Your task to perform on an android device: allow cookies in the chrome app Image 0: 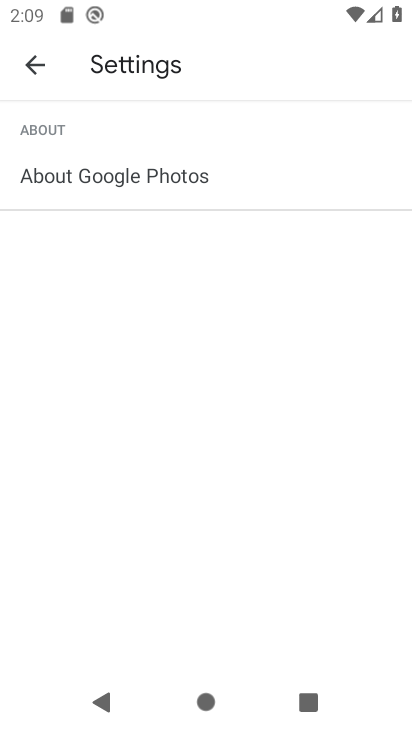
Step 0: press back button
Your task to perform on an android device: allow cookies in the chrome app Image 1: 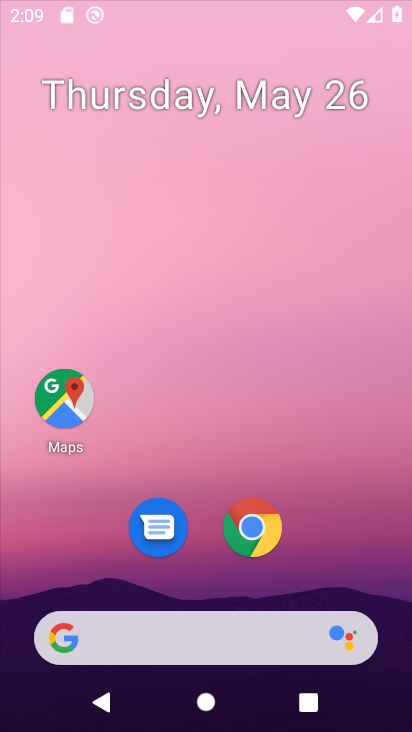
Step 1: press back button
Your task to perform on an android device: allow cookies in the chrome app Image 2: 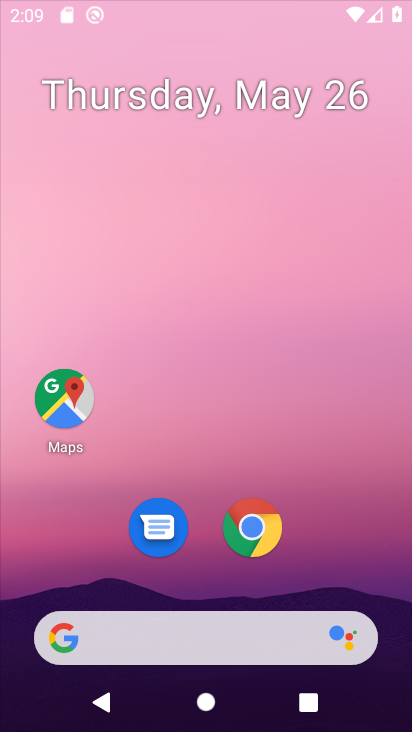
Step 2: click (237, 536)
Your task to perform on an android device: allow cookies in the chrome app Image 3: 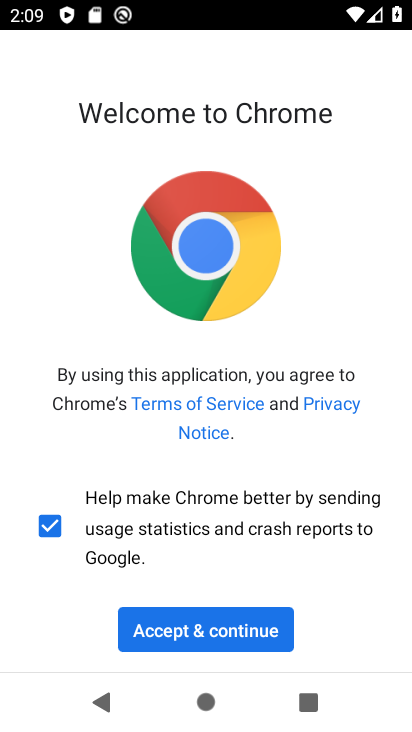
Step 3: click (207, 627)
Your task to perform on an android device: allow cookies in the chrome app Image 4: 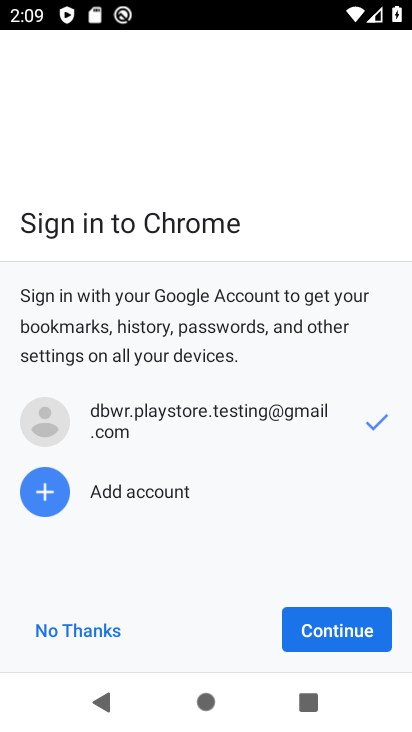
Step 4: click (306, 634)
Your task to perform on an android device: allow cookies in the chrome app Image 5: 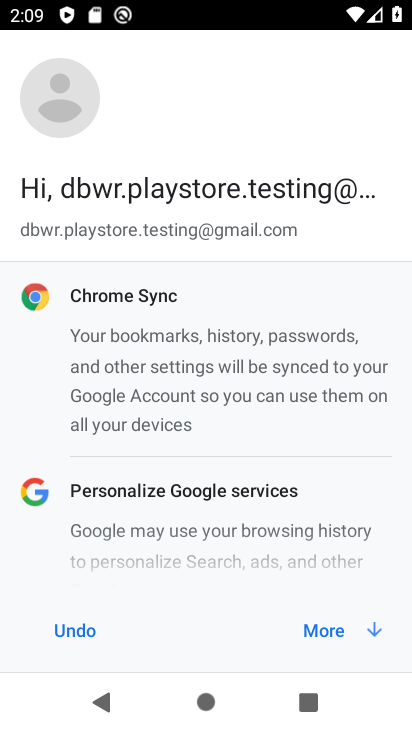
Step 5: click (306, 627)
Your task to perform on an android device: allow cookies in the chrome app Image 6: 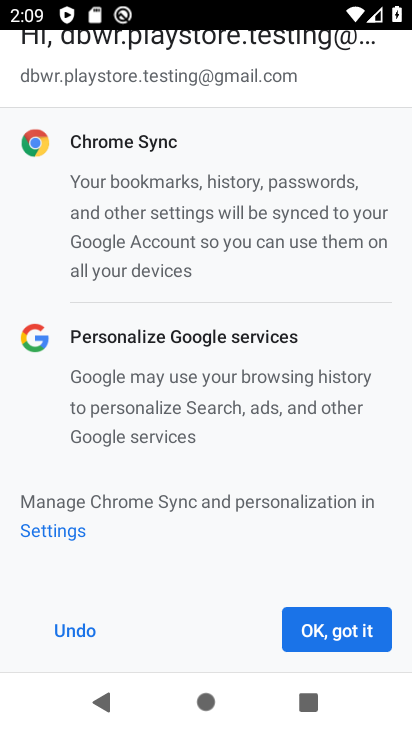
Step 6: click (306, 627)
Your task to perform on an android device: allow cookies in the chrome app Image 7: 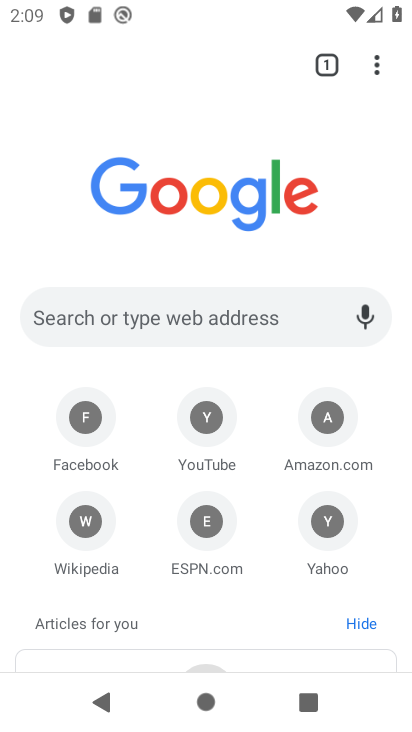
Step 7: drag from (372, 67) to (183, 549)
Your task to perform on an android device: allow cookies in the chrome app Image 8: 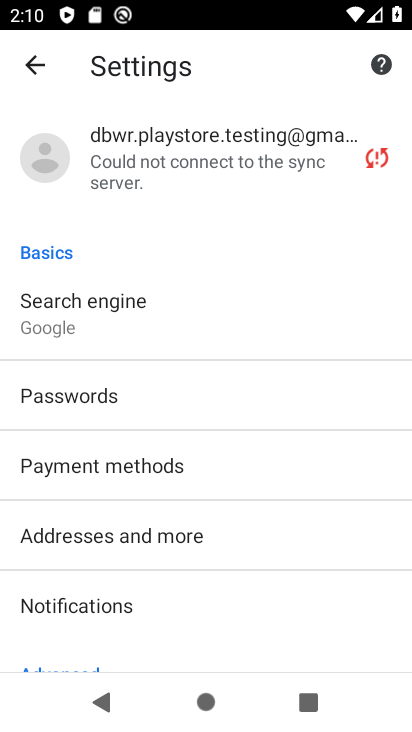
Step 8: drag from (127, 597) to (230, 233)
Your task to perform on an android device: allow cookies in the chrome app Image 9: 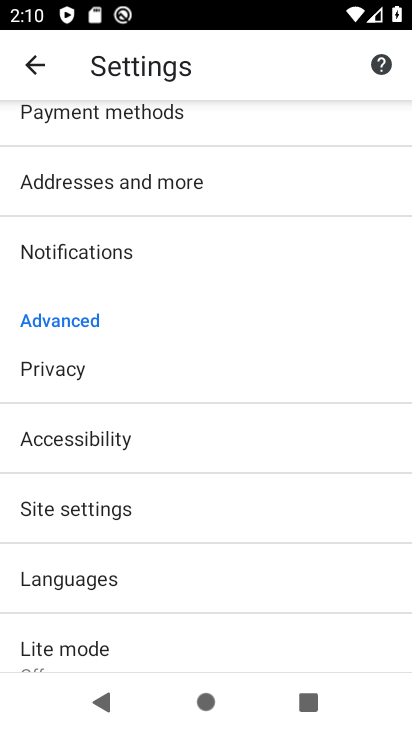
Step 9: click (86, 510)
Your task to perform on an android device: allow cookies in the chrome app Image 10: 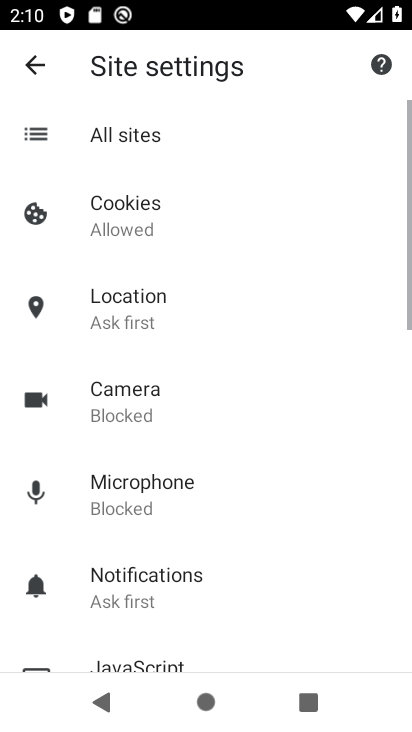
Step 10: click (154, 202)
Your task to perform on an android device: allow cookies in the chrome app Image 11: 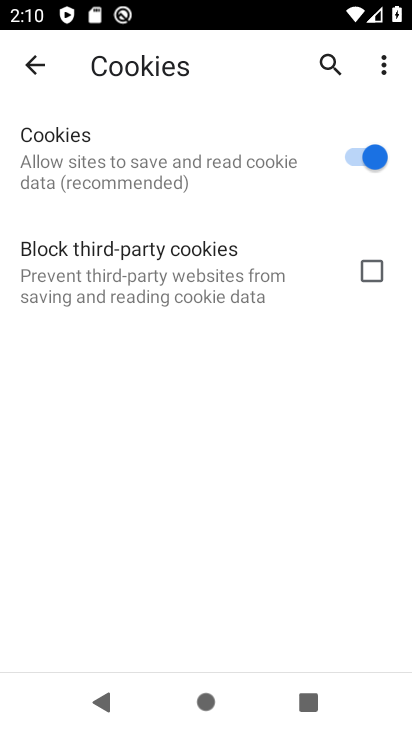
Step 11: task complete